Your task to perform on an android device: change the clock display to digital Image 0: 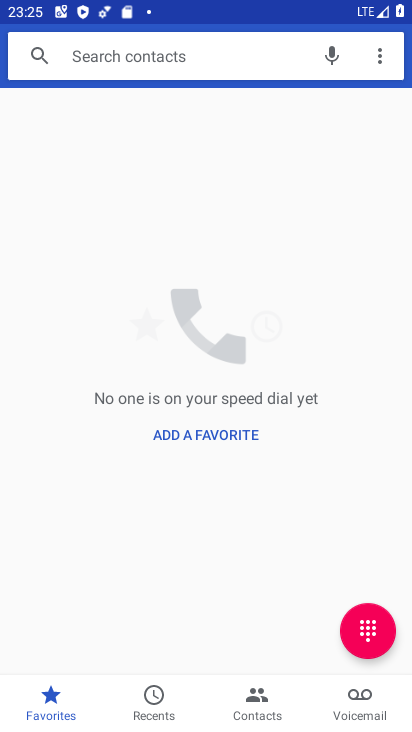
Step 0: press home button
Your task to perform on an android device: change the clock display to digital Image 1: 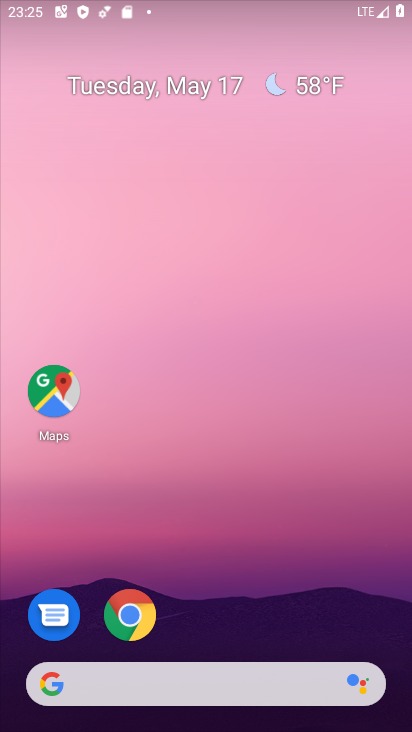
Step 1: drag from (282, 607) to (254, 243)
Your task to perform on an android device: change the clock display to digital Image 2: 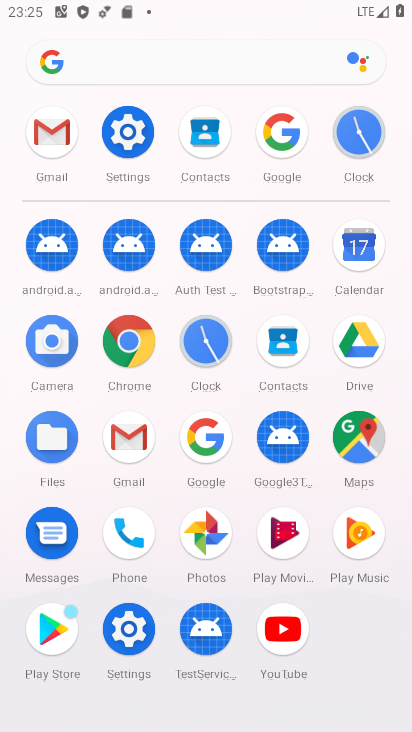
Step 2: click (351, 148)
Your task to perform on an android device: change the clock display to digital Image 3: 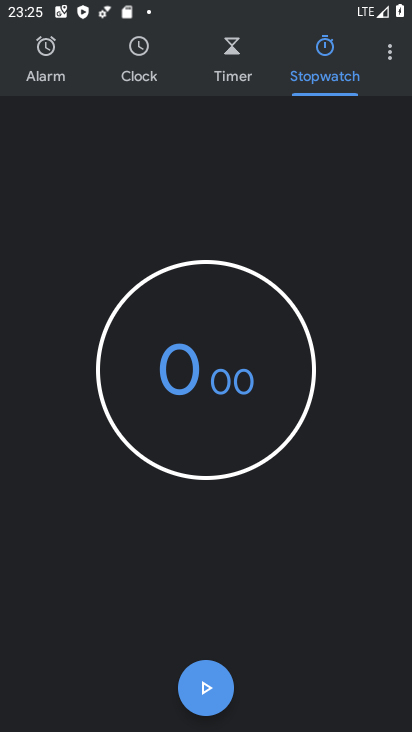
Step 3: click (385, 53)
Your task to perform on an android device: change the clock display to digital Image 4: 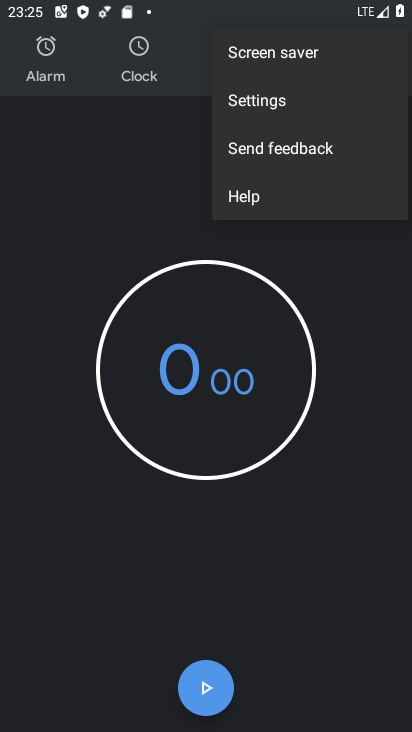
Step 4: click (303, 104)
Your task to perform on an android device: change the clock display to digital Image 5: 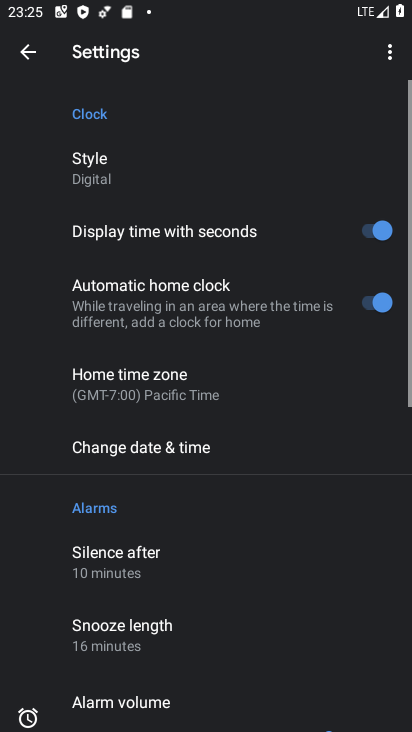
Step 5: click (107, 164)
Your task to perform on an android device: change the clock display to digital Image 6: 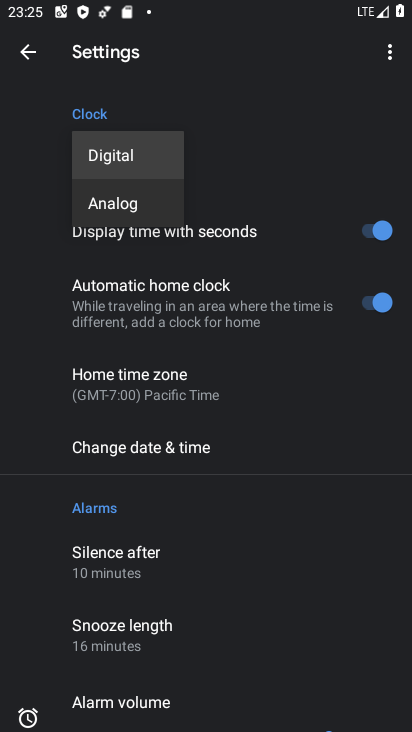
Step 6: task complete